Your task to perform on an android device: open wifi settings Image 0: 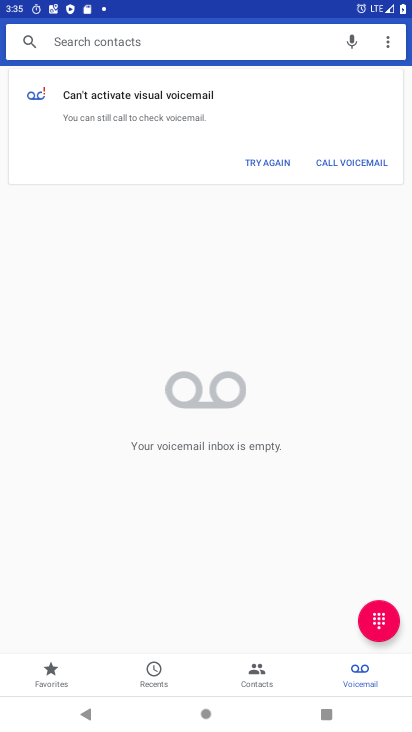
Step 0: press home button
Your task to perform on an android device: open wifi settings Image 1: 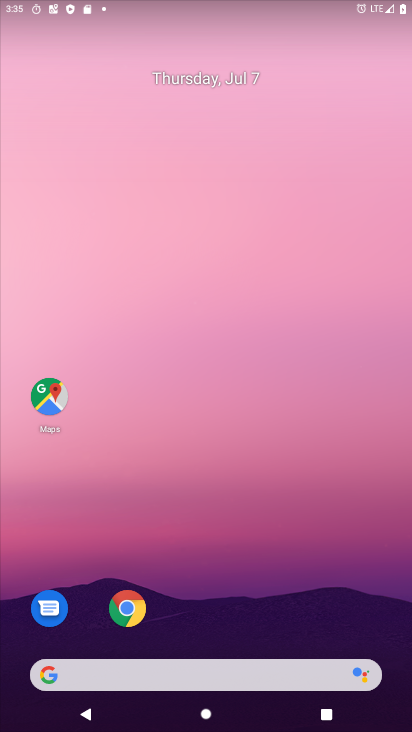
Step 1: drag from (241, 720) to (257, 0)
Your task to perform on an android device: open wifi settings Image 2: 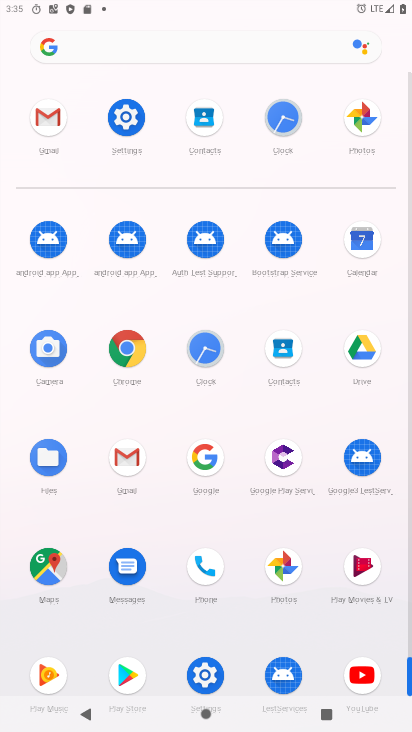
Step 2: click (116, 117)
Your task to perform on an android device: open wifi settings Image 3: 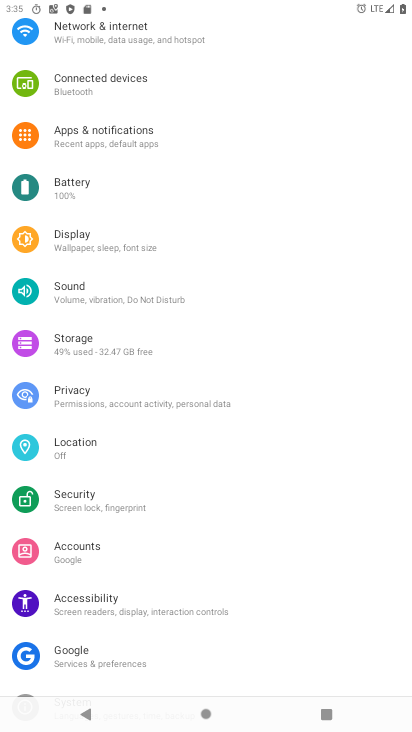
Step 3: drag from (197, 103) to (192, 455)
Your task to perform on an android device: open wifi settings Image 4: 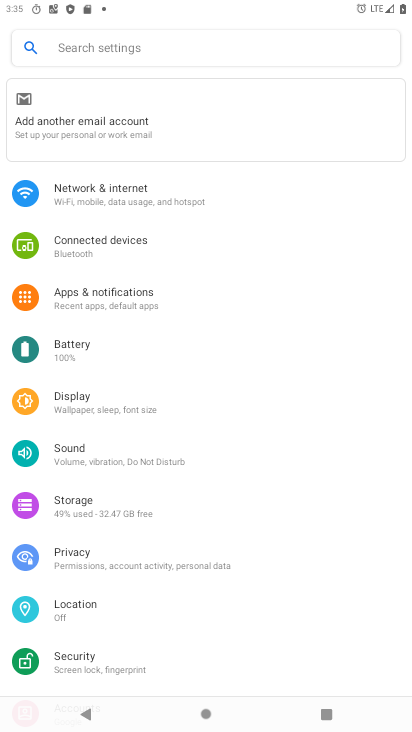
Step 4: click (82, 184)
Your task to perform on an android device: open wifi settings Image 5: 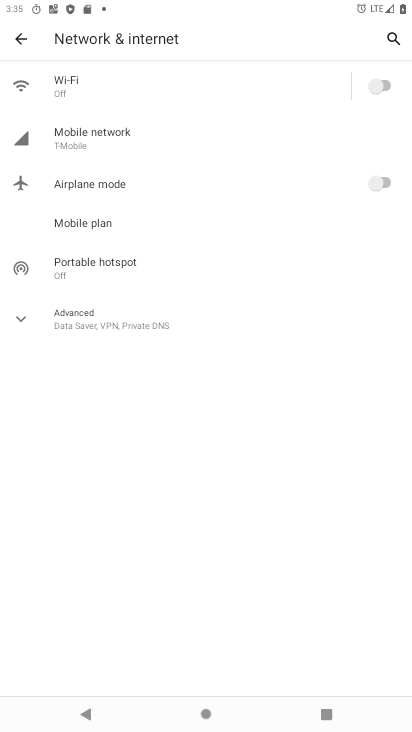
Step 5: click (62, 78)
Your task to perform on an android device: open wifi settings Image 6: 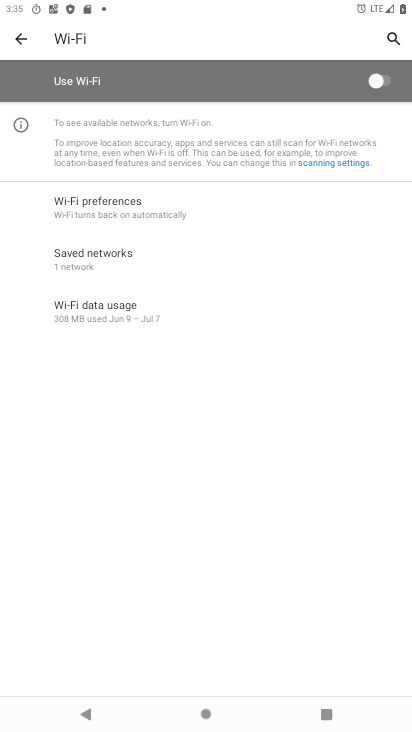
Step 6: task complete